Your task to perform on an android device: open app "TextNow: Call + Text Unlimited" (install if not already installed) and enter user name: "stoke@yahoo.com" and password: "prompted" Image 0: 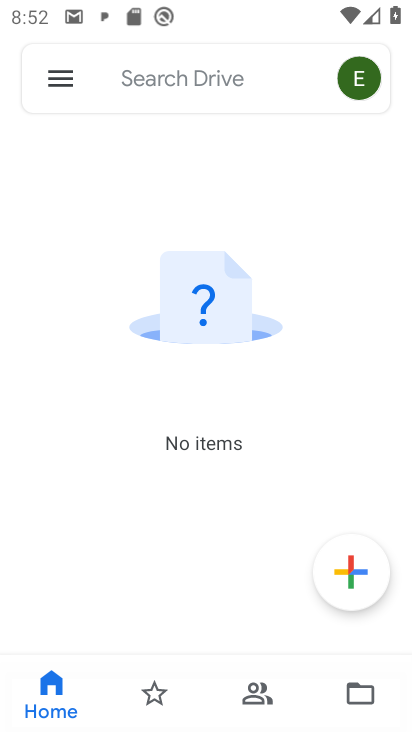
Step 0: press home button
Your task to perform on an android device: open app "TextNow: Call + Text Unlimited" (install if not already installed) and enter user name: "stoke@yahoo.com" and password: "prompted" Image 1: 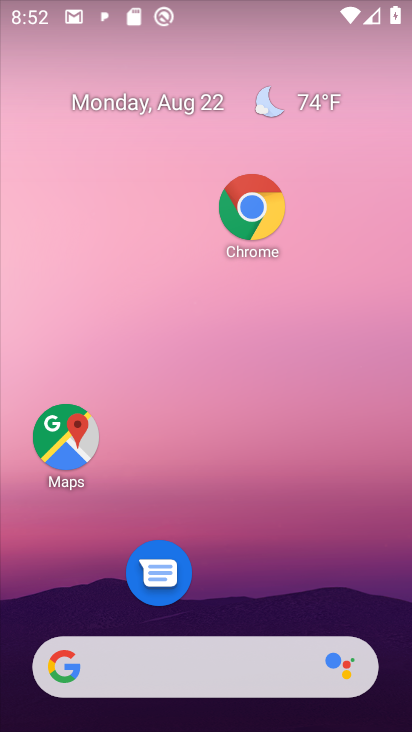
Step 1: drag from (237, 610) to (280, 52)
Your task to perform on an android device: open app "TextNow: Call + Text Unlimited" (install if not already installed) and enter user name: "stoke@yahoo.com" and password: "prompted" Image 2: 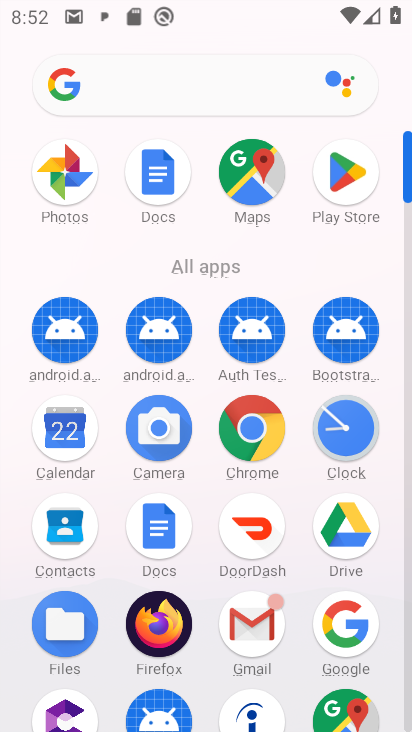
Step 2: click (357, 190)
Your task to perform on an android device: open app "TextNow: Call + Text Unlimited" (install if not already installed) and enter user name: "stoke@yahoo.com" and password: "prompted" Image 3: 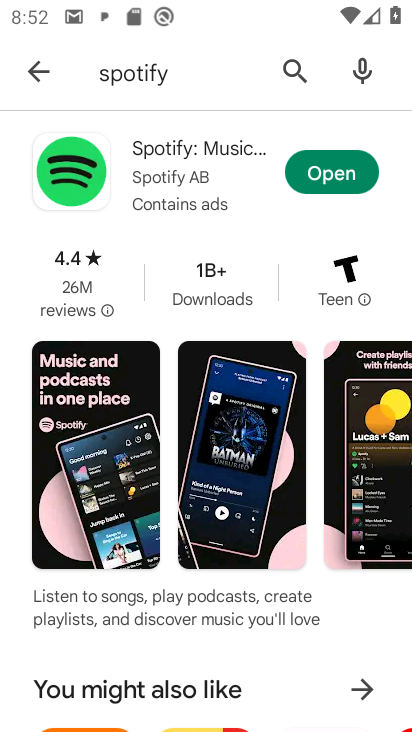
Step 3: click (147, 77)
Your task to perform on an android device: open app "TextNow: Call + Text Unlimited" (install if not already installed) and enter user name: "stoke@yahoo.com" and password: "prompted" Image 4: 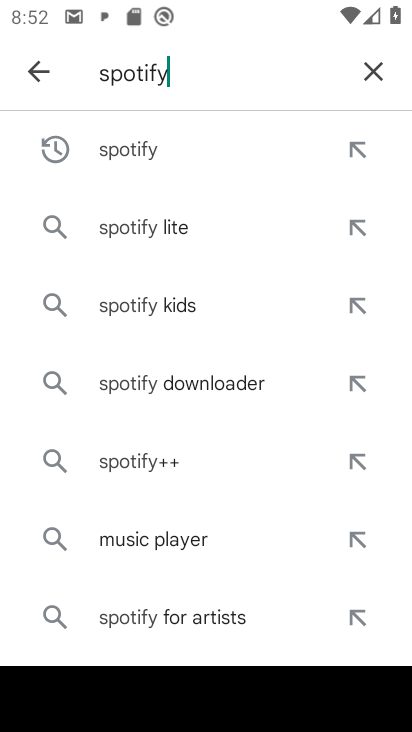
Step 4: click (371, 67)
Your task to perform on an android device: open app "TextNow: Call + Text Unlimited" (install if not already installed) and enter user name: "stoke@yahoo.com" and password: "prompted" Image 5: 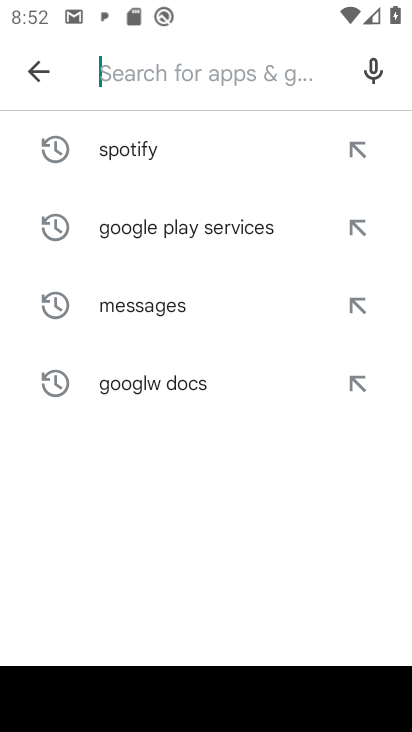
Step 5: type "TextNow Call"
Your task to perform on an android device: open app "TextNow: Call + Text Unlimited" (install if not already installed) and enter user name: "stoke@yahoo.com" and password: "prompted" Image 6: 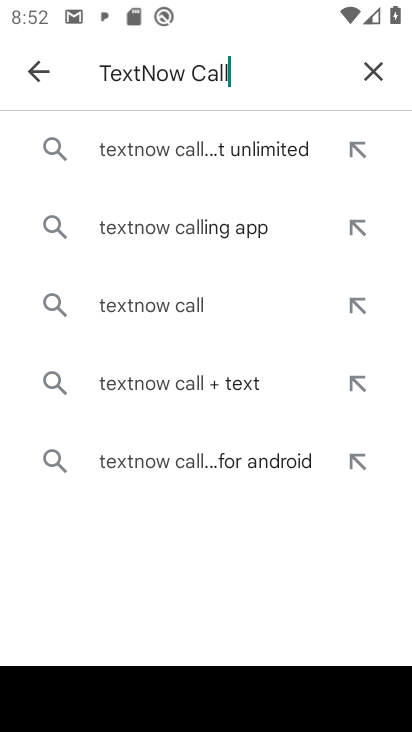
Step 6: click (185, 160)
Your task to perform on an android device: open app "TextNow: Call + Text Unlimited" (install if not already installed) and enter user name: "stoke@yahoo.com" and password: "prompted" Image 7: 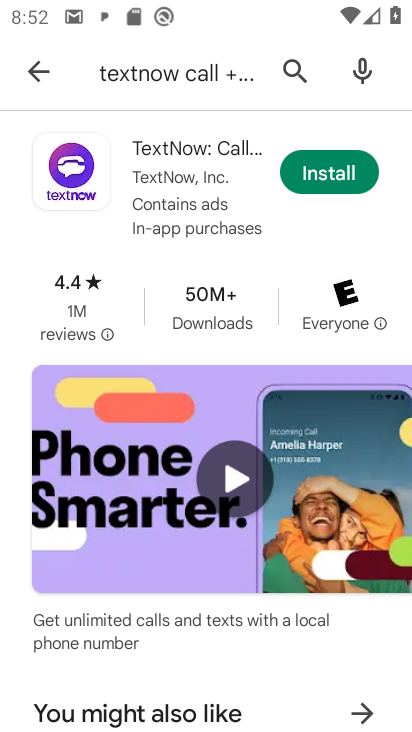
Step 7: click (310, 180)
Your task to perform on an android device: open app "TextNow: Call + Text Unlimited" (install if not already installed) and enter user name: "stoke@yahoo.com" and password: "prompted" Image 8: 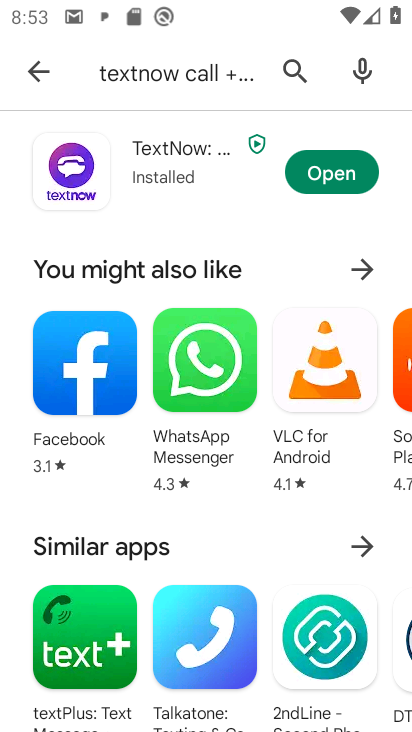
Step 8: click (353, 170)
Your task to perform on an android device: open app "TextNow: Call + Text Unlimited" (install if not already installed) and enter user name: "stoke@yahoo.com" and password: "prompted" Image 9: 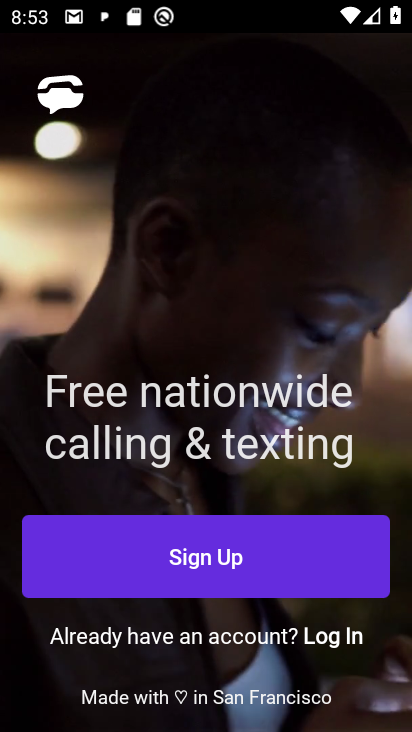
Step 9: click (348, 637)
Your task to perform on an android device: open app "TextNow: Call + Text Unlimited" (install if not already installed) and enter user name: "stoke@yahoo.com" and password: "prompted" Image 10: 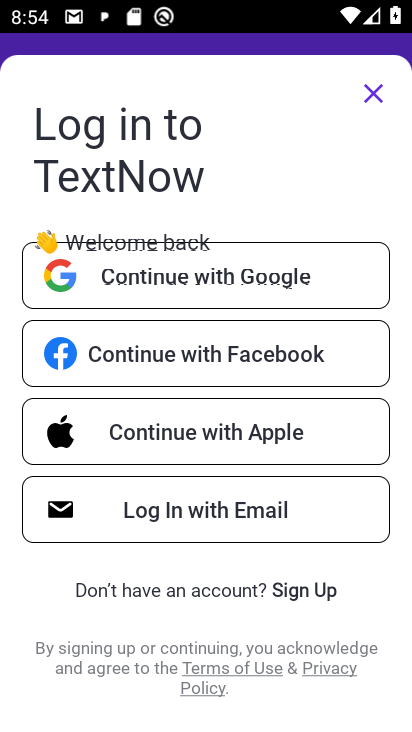
Step 10: click (290, 597)
Your task to perform on an android device: open app "TextNow: Call + Text Unlimited" (install if not already installed) and enter user name: "stoke@yahoo.com" and password: "prompted" Image 11: 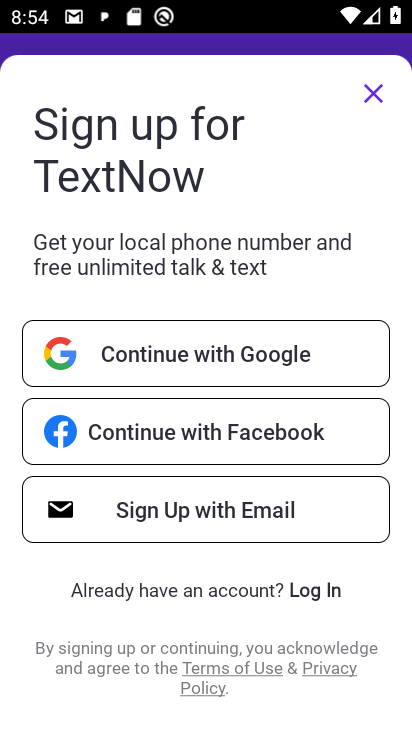
Step 11: click (312, 583)
Your task to perform on an android device: open app "TextNow: Call + Text Unlimited" (install if not already installed) and enter user name: "stoke@yahoo.com" and password: "prompted" Image 12: 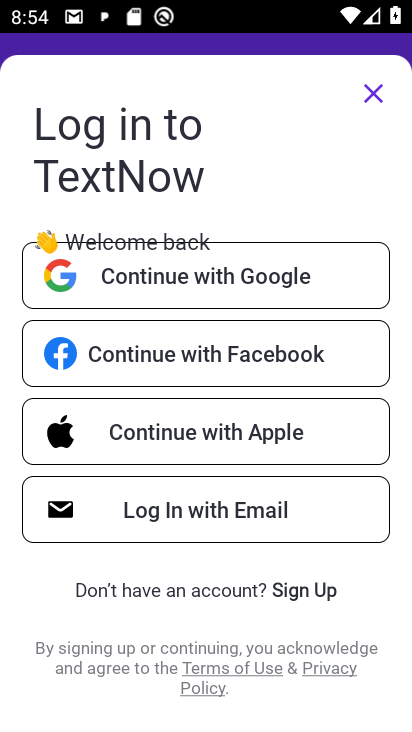
Step 12: click (302, 495)
Your task to perform on an android device: open app "TextNow: Call + Text Unlimited" (install if not already installed) and enter user name: "stoke@yahoo.com" and password: "prompted" Image 13: 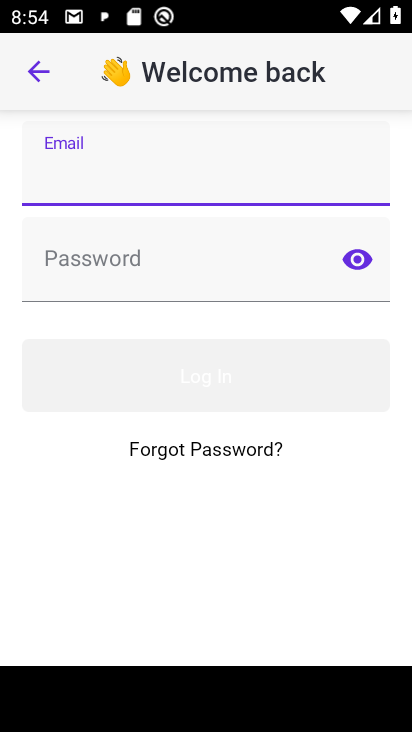
Step 13: type "stoke@yahoo.com"
Your task to perform on an android device: open app "TextNow: Call + Text Unlimited" (install if not already installed) and enter user name: "stoke@yahoo.com" and password: "prompted" Image 14: 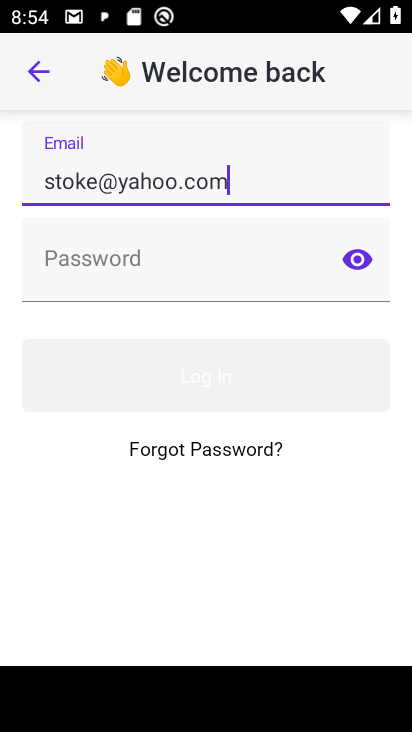
Step 14: click (142, 286)
Your task to perform on an android device: open app "TextNow: Call + Text Unlimited" (install if not already installed) and enter user name: "stoke@yahoo.com" and password: "prompted" Image 15: 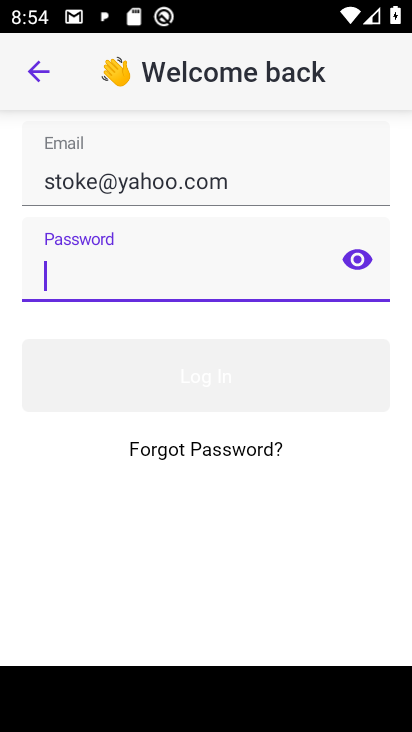
Step 15: type "prompted"
Your task to perform on an android device: open app "TextNow: Call + Text Unlimited" (install if not already installed) and enter user name: "stoke@yahoo.com" and password: "prompted" Image 16: 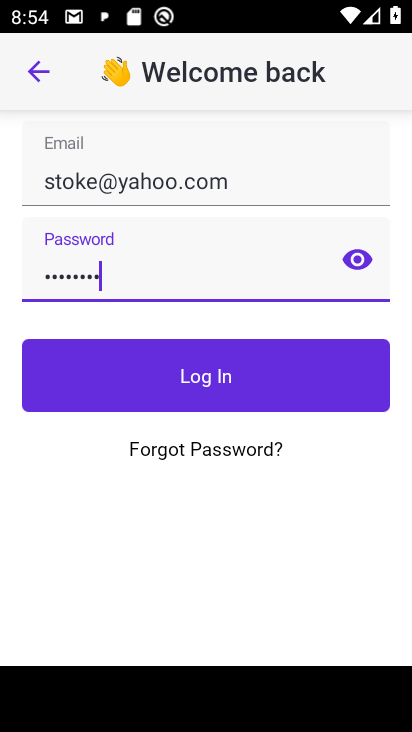
Step 16: click (299, 377)
Your task to perform on an android device: open app "TextNow: Call + Text Unlimited" (install if not already installed) and enter user name: "stoke@yahoo.com" and password: "prompted" Image 17: 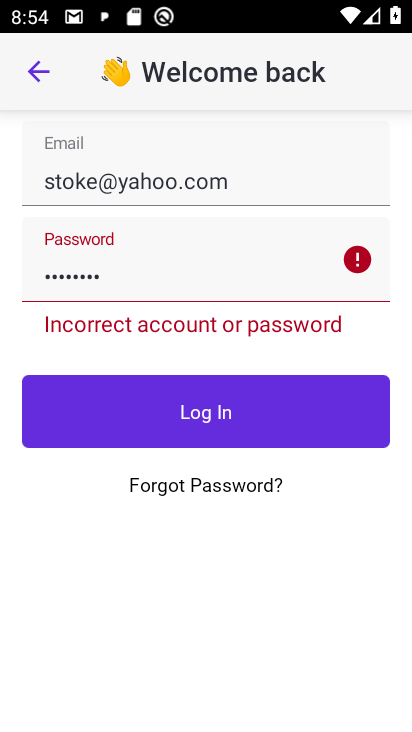
Step 17: task complete